Your task to perform on an android device: Open the phone app and click the voicemail tab. Image 0: 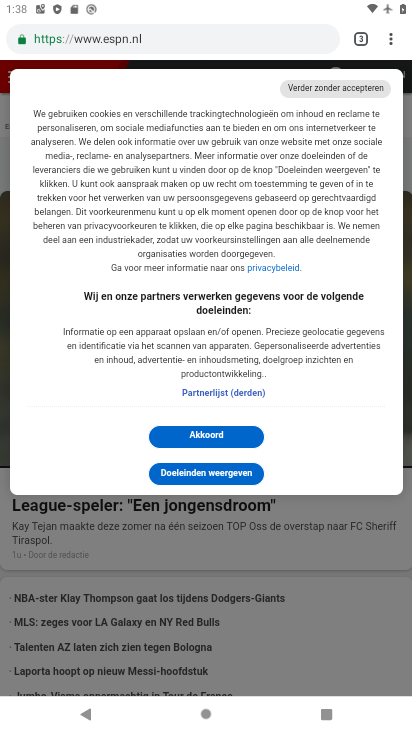
Step 0: press home button
Your task to perform on an android device: Open the phone app and click the voicemail tab. Image 1: 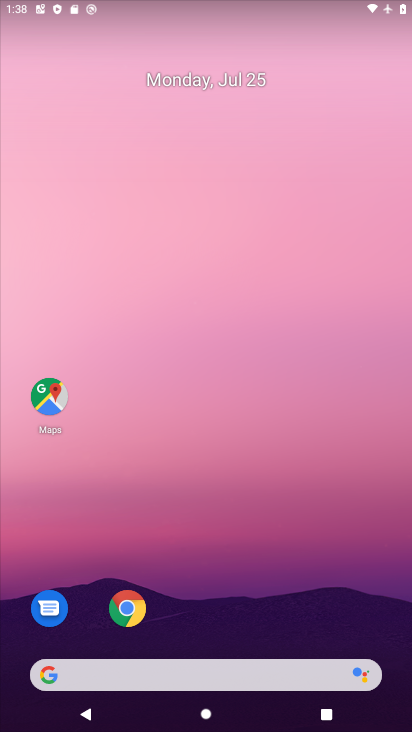
Step 1: drag from (184, 604) to (193, 193)
Your task to perform on an android device: Open the phone app and click the voicemail tab. Image 2: 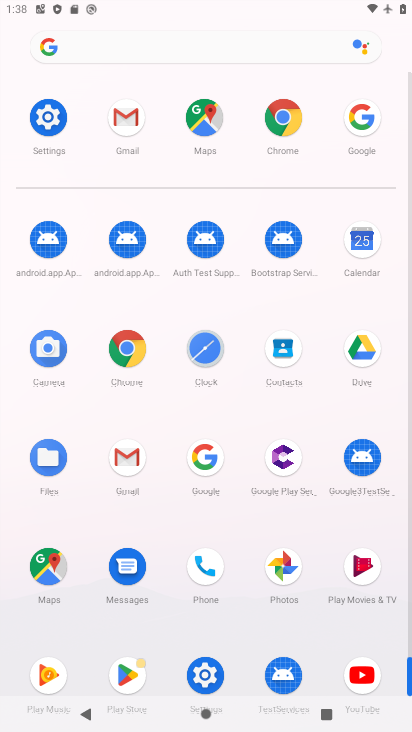
Step 2: drag from (231, 466) to (278, 213)
Your task to perform on an android device: Open the phone app and click the voicemail tab. Image 3: 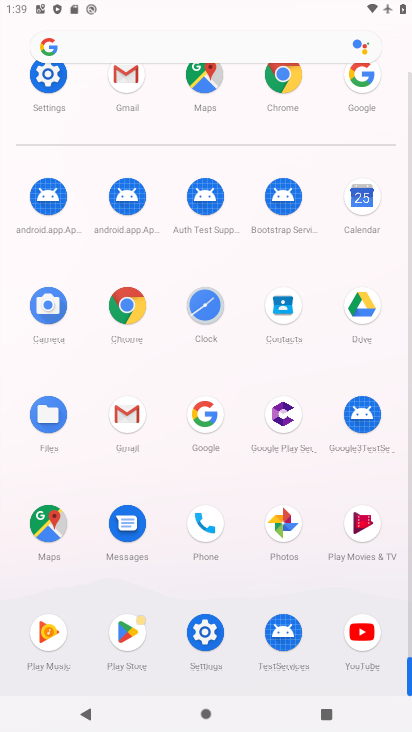
Step 3: click (200, 541)
Your task to perform on an android device: Open the phone app and click the voicemail tab. Image 4: 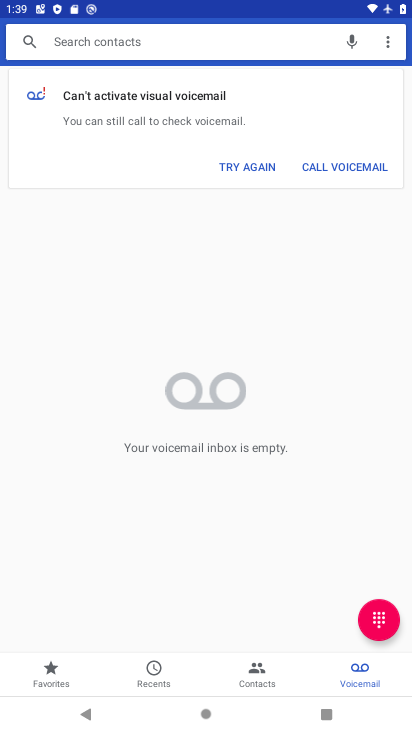
Step 4: click (357, 672)
Your task to perform on an android device: Open the phone app and click the voicemail tab. Image 5: 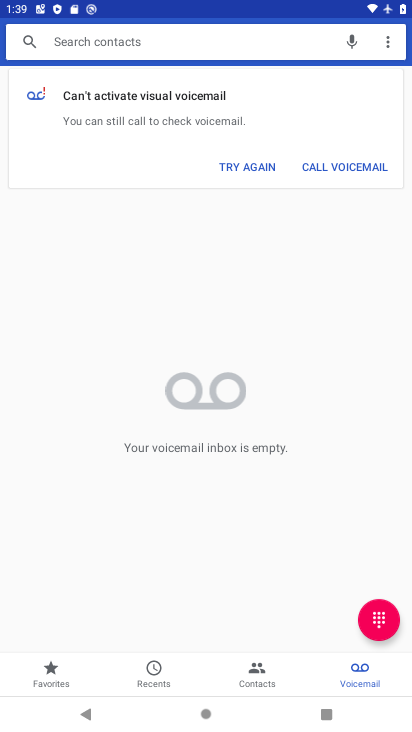
Step 5: task complete